Your task to perform on an android device: Go to location settings Image 0: 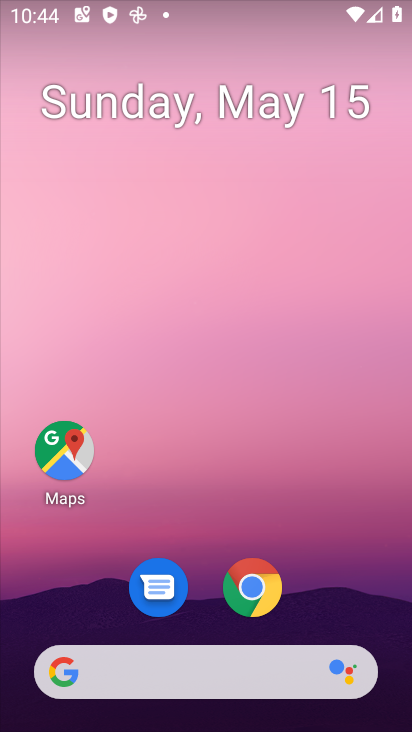
Step 0: drag from (402, 616) to (299, 66)
Your task to perform on an android device: Go to location settings Image 1: 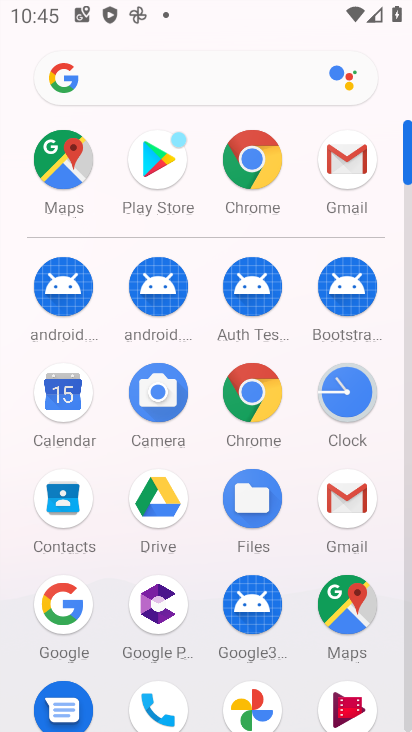
Step 1: drag from (217, 653) to (165, 264)
Your task to perform on an android device: Go to location settings Image 2: 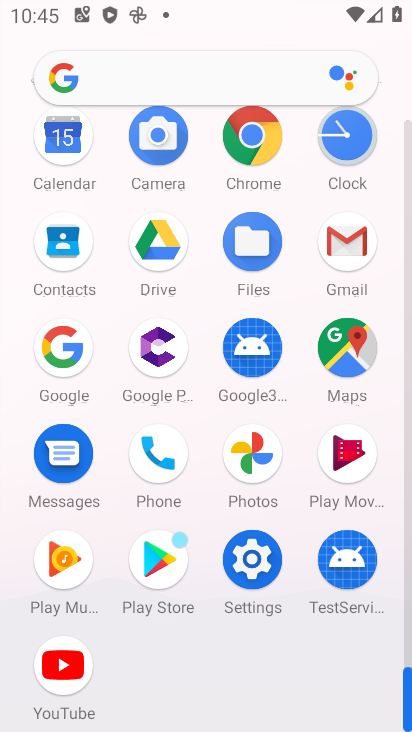
Step 2: click (254, 549)
Your task to perform on an android device: Go to location settings Image 3: 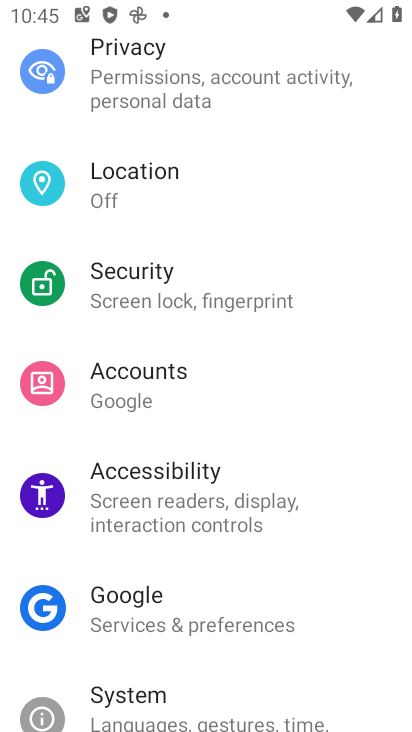
Step 3: click (178, 609)
Your task to perform on an android device: Go to location settings Image 4: 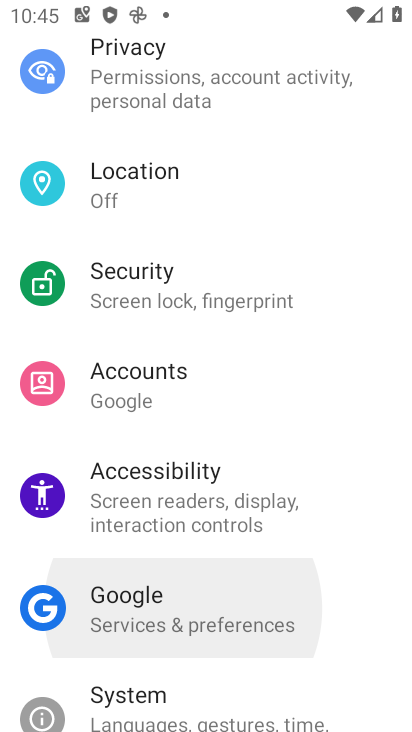
Step 4: click (188, 516)
Your task to perform on an android device: Go to location settings Image 5: 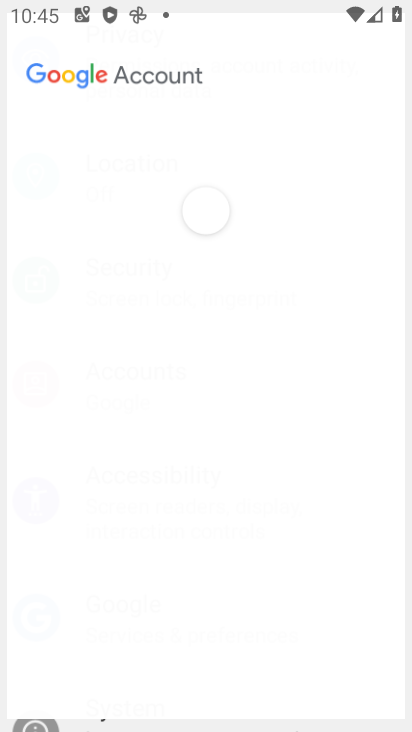
Step 5: click (152, 190)
Your task to perform on an android device: Go to location settings Image 6: 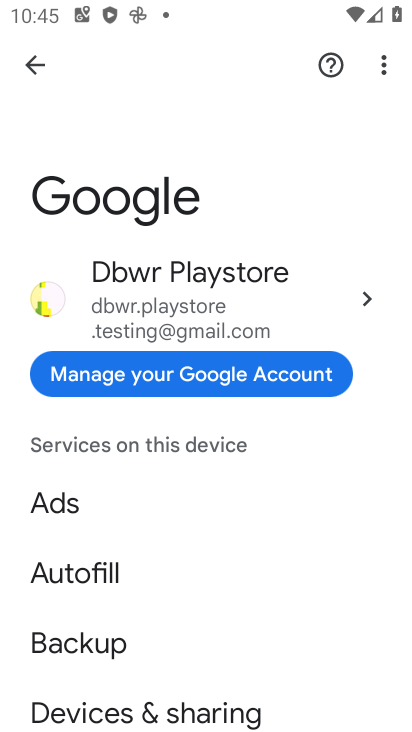
Step 6: press back button
Your task to perform on an android device: Go to location settings Image 7: 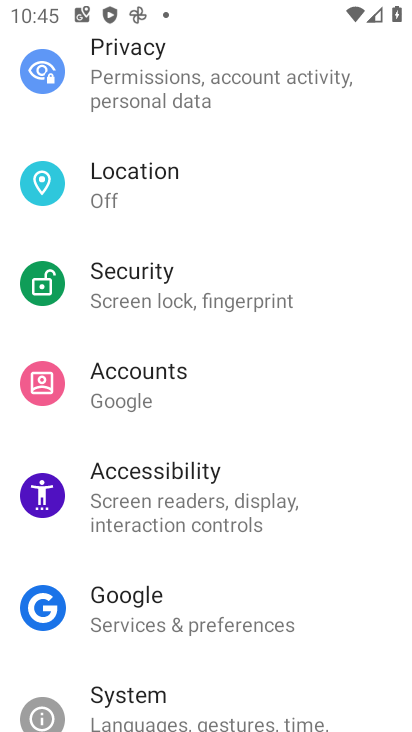
Step 7: click (196, 195)
Your task to perform on an android device: Go to location settings Image 8: 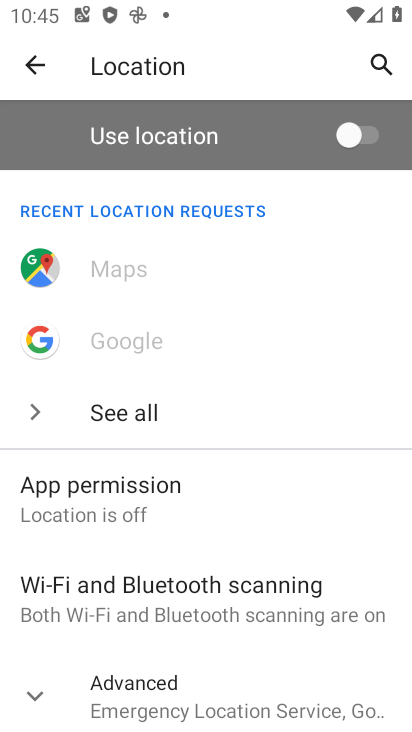
Step 8: task complete